Your task to perform on an android device: turn pop-ups on in chrome Image 0: 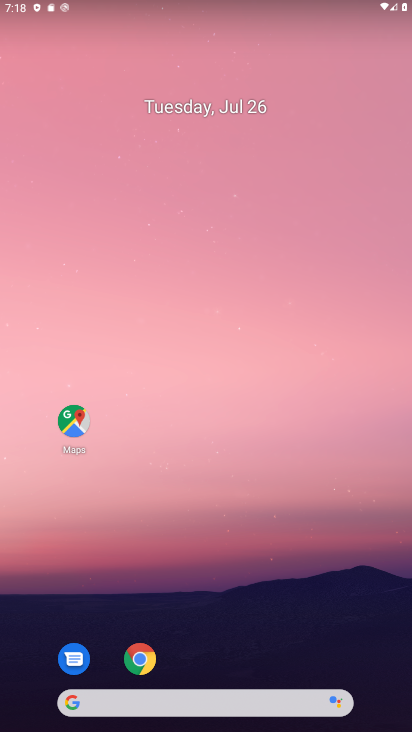
Step 0: click (140, 671)
Your task to perform on an android device: turn pop-ups on in chrome Image 1: 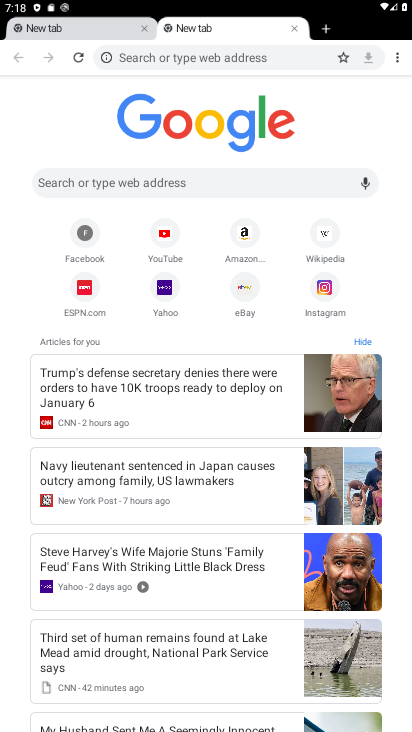
Step 1: click (388, 59)
Your task to perform on an android device: turn pop-ups on in chrome Image 2: 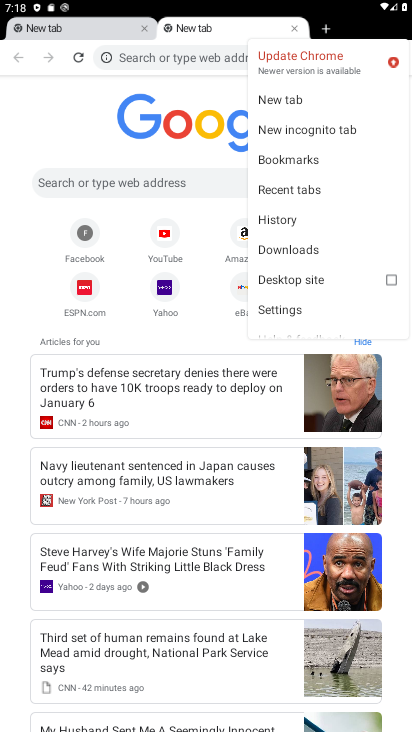
Step 2: click (279, 311)
Your task to perform on an android device: turn pop-ups on in chrome Image 3: 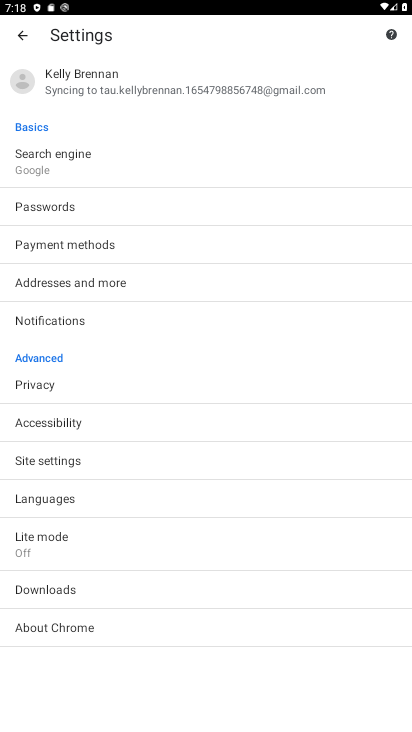
Step 3: click (104, 92)
Your task to perform on an android device: turn pop-ups on in chrome Image 4: 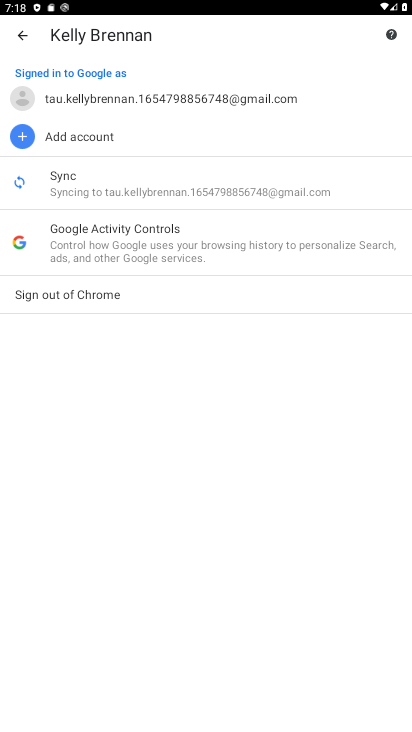
Step 4: click (24, 32)
Your task to perform on an android device: turn pop-ups on in chrome Image 5: 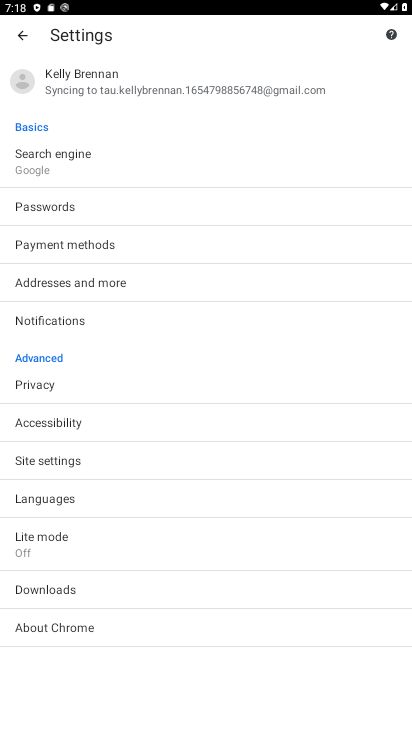
Step 5: click (29, 452)
Your task to perform on an android device: turn pop-ups on in chrome Image 6: 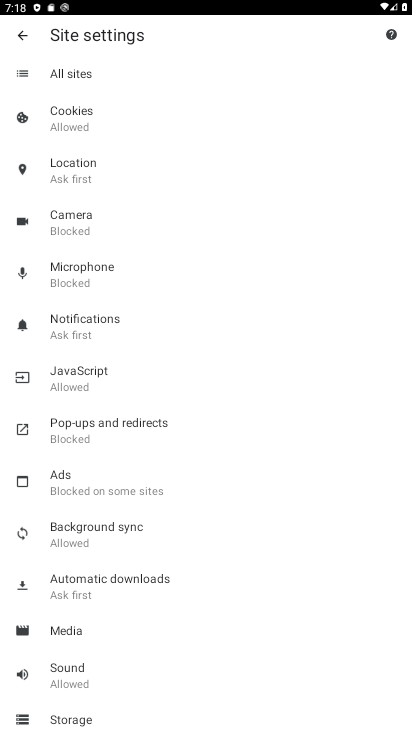
Step 6: click (131, 425)
Your task to perform on an android device: turn pop-ups on in chrome Image 7: 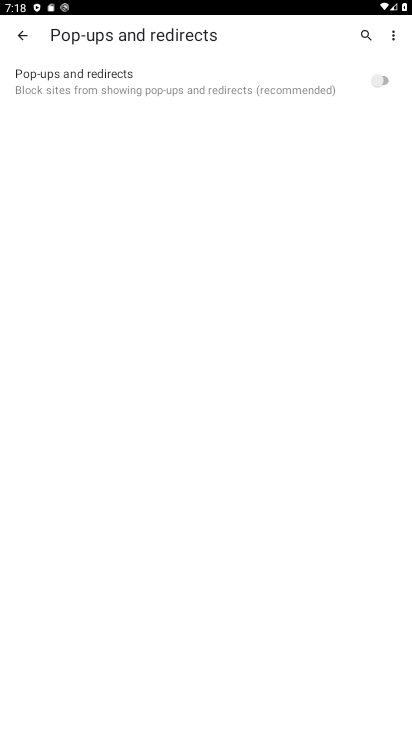
Step 7: click (378, 80)
Your task to perform on an android device: turn pop-ups on in chrome Image 8: 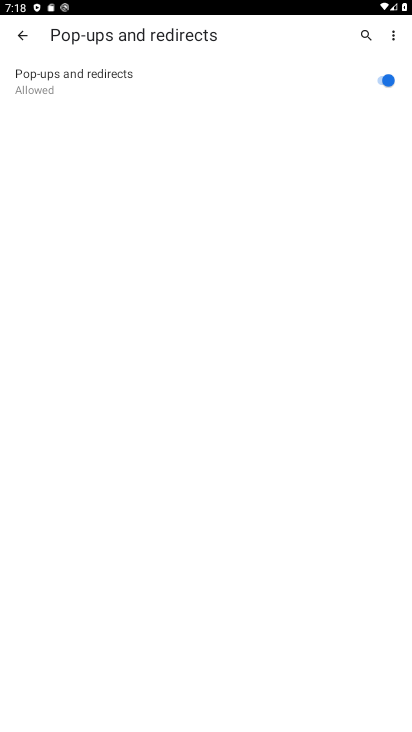
Step 8: task complete